Your task to perform on an android device: search for starred emails in the gmail app Image 0: 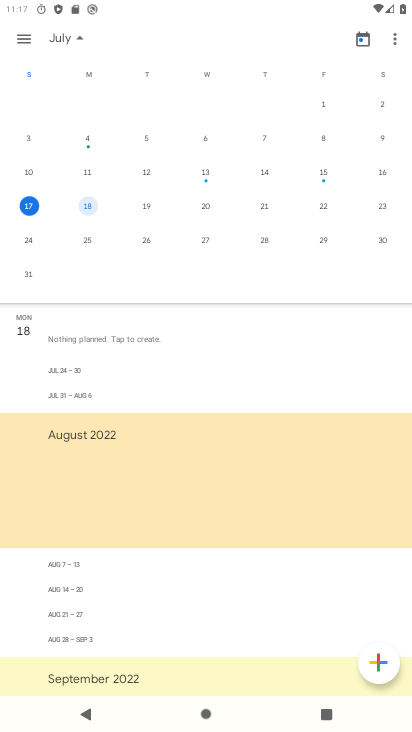
Step 0: press home button
Your task to perform on an android device: search for starred emails in the gmail app Image 1: 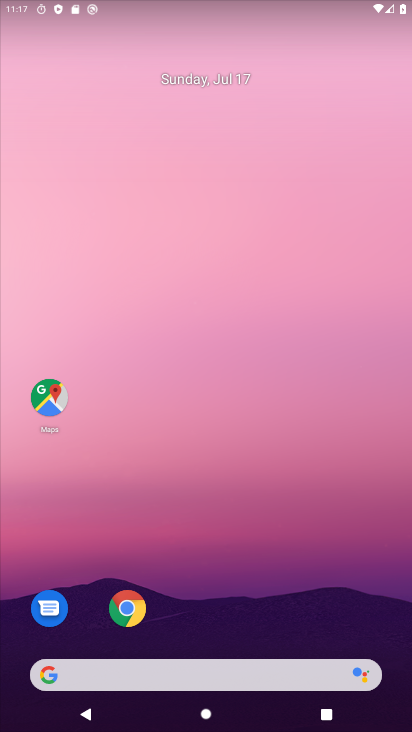
Step 1: drag from (271, 615) to (267, 111)
Your task to perform on an android device: search for starred emails in the gmail app Image 2: 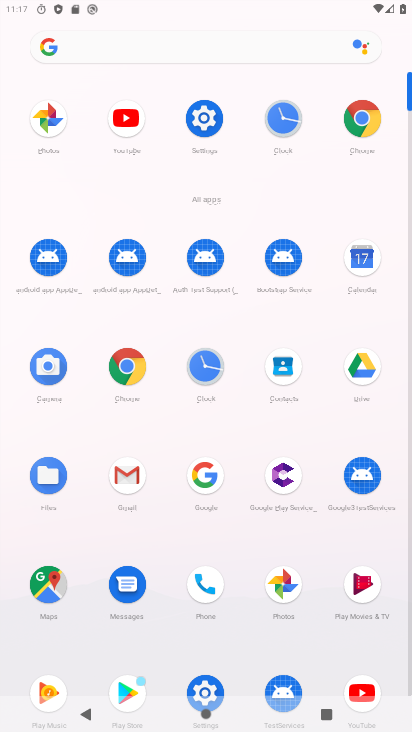
Step 2: click (125, 477)
Your task to perform on an android device: search for starred emails in the gmail app Image 3: 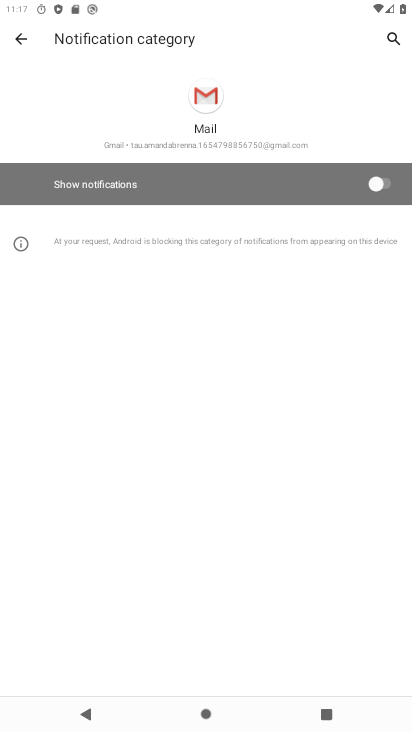
Step 3: click (25, 42)
Your task to perform on an android device: search for starred emails in the gmail app Image 4: 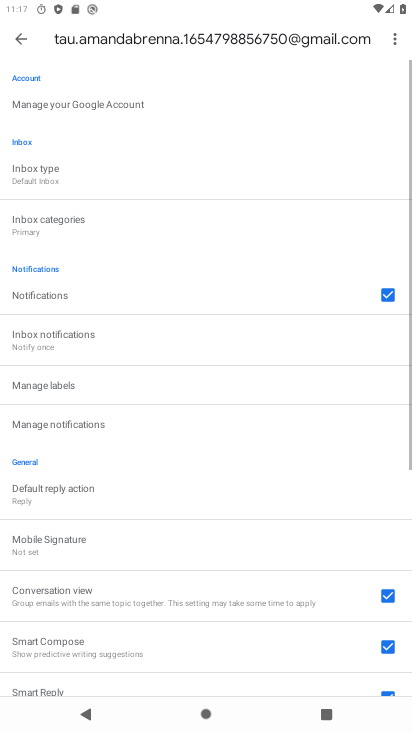
Step 4: click (25, 42)
Your task to perform on an android device: search for starred emails in the gmail app Image 5: 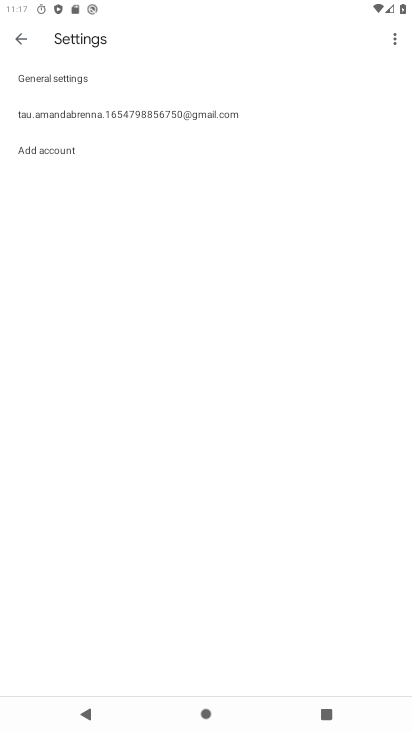
Step 5: click (19, 37)
Your task to perform on an android device: search for starred emails in the gmail app Image 6: 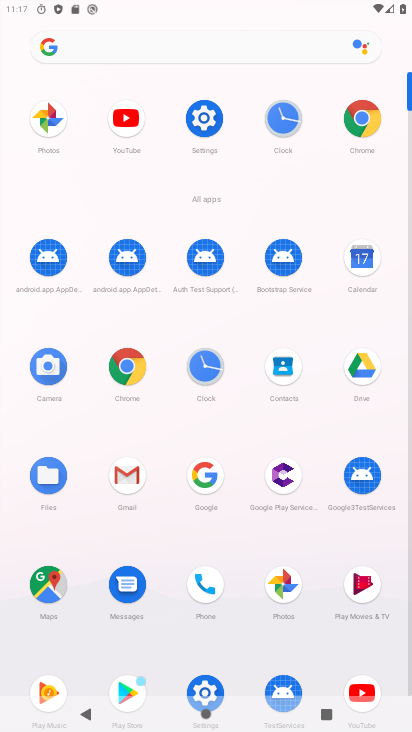
Step 6: click (137, 469)
Your task to perform on an android device: search for starred emails in the gmail app Image 7: 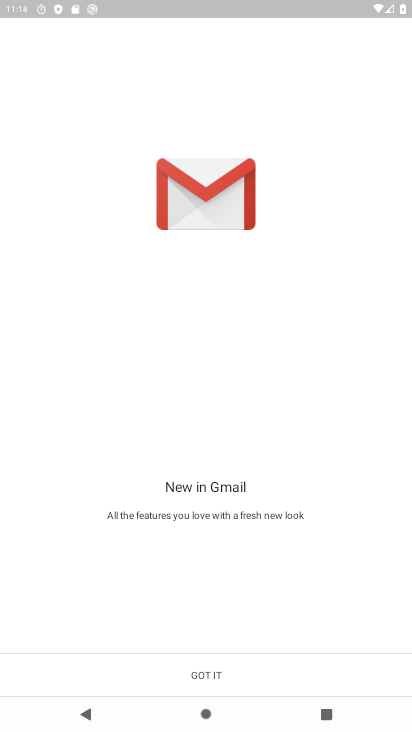
Step 7: click (213, 684)
Your task to perform on an android device: search for starred emails in the gmail app Image 8: 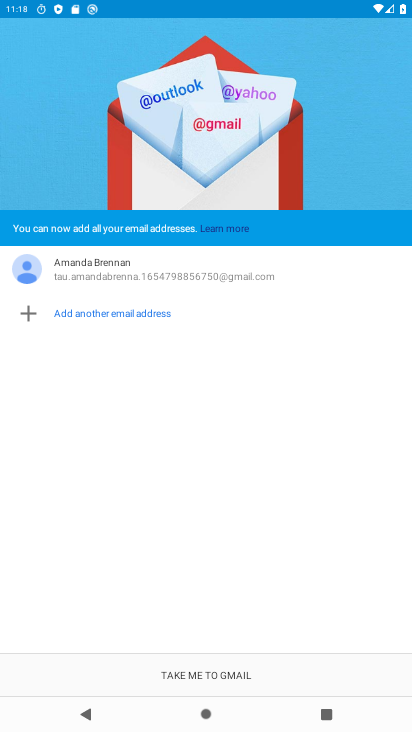
Step 8: click (213, 684)
Your task to perform on an android device: search for starred emails in the gmail app Image 9: 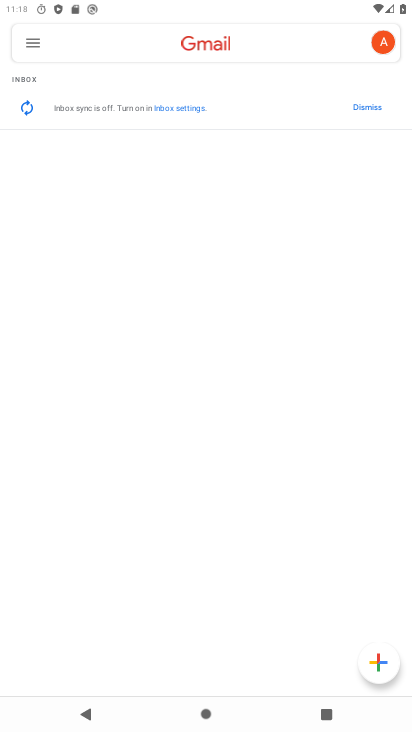
Step 9: click (35, 44)
Your task to perform on an android device: search for starred emails in the gmail app Image 10: 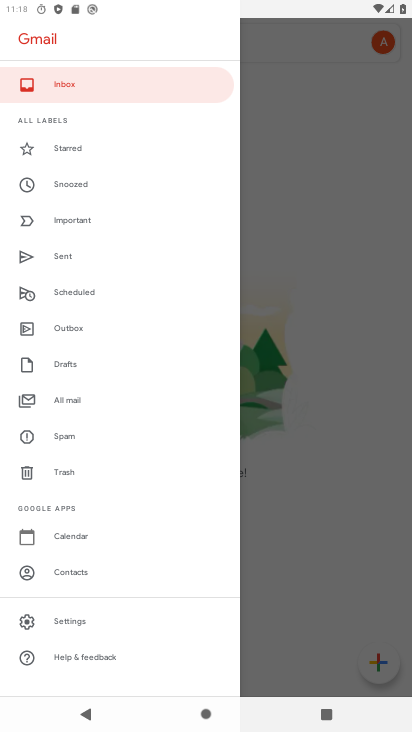
Step 10: click (99, 156)
Your task to perform on an android device: search for starred emails in the gmail app Image 11: 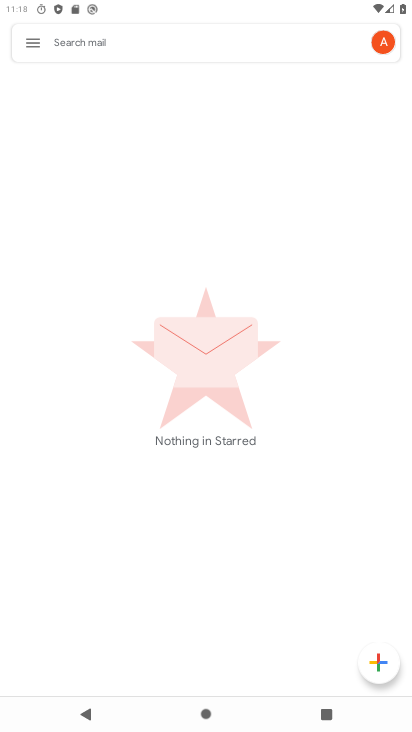
Step 11: task complete